Your task to perform on an android device: turn off picture-in-picture Image 0: 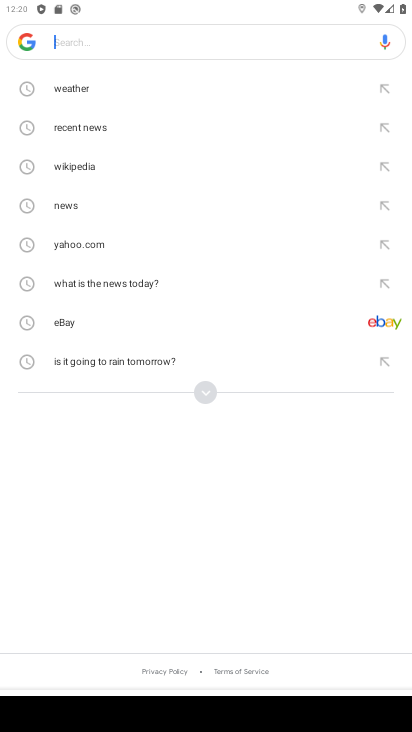
Step 0: press home button
Your task to perform on an android device: turn off picture-in-picture Image 1: 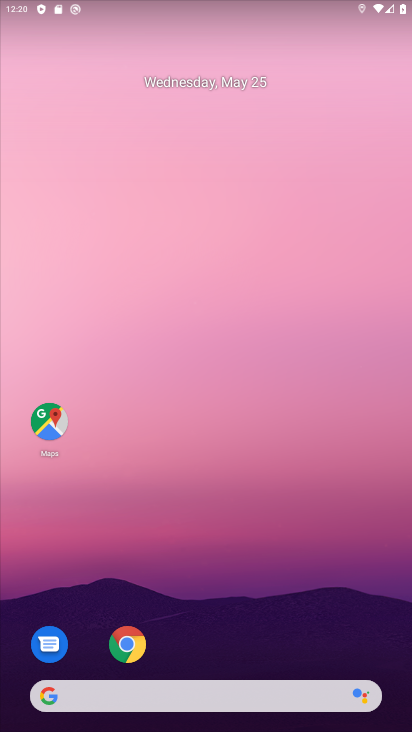
Step 1: drag from (202, 510) to (160, 46)
Your task to perform on an android device: turn off picture-in-picture Image 2: 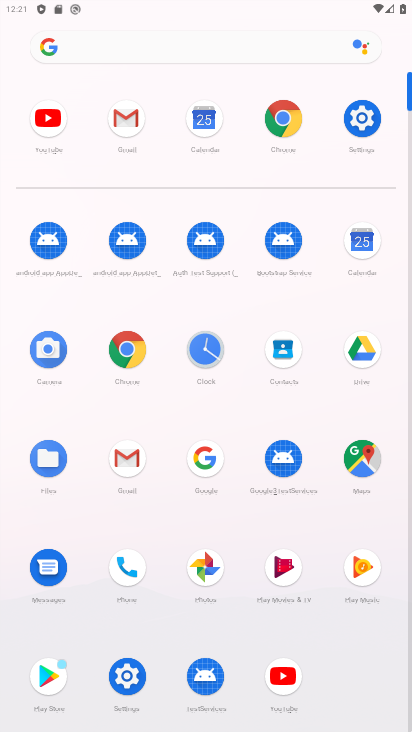
Step 2: click (363, 116)
Your task to perform on an android device: turn off picture-in-picture Image 3: 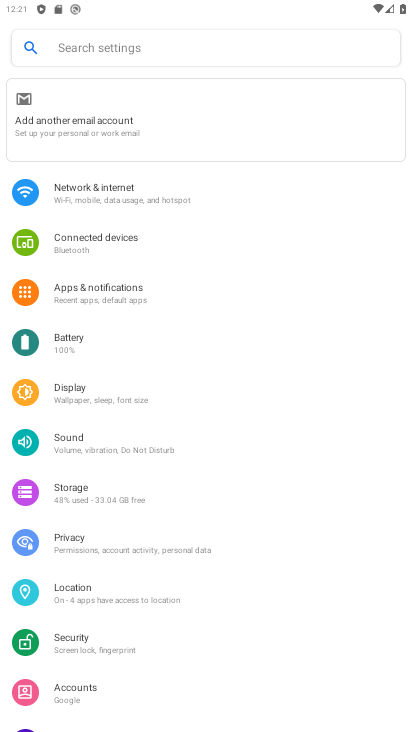
Step 3: click (87, 275)
Your task to perform on an android device: turn off picture-in-picture Image 4: 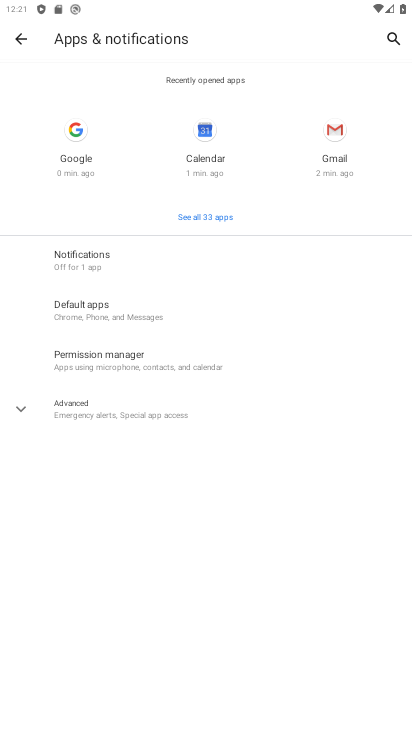
Step 4: click (76, 245)
Your task to perform on an android device: turn off picture-in-picture Image 5: 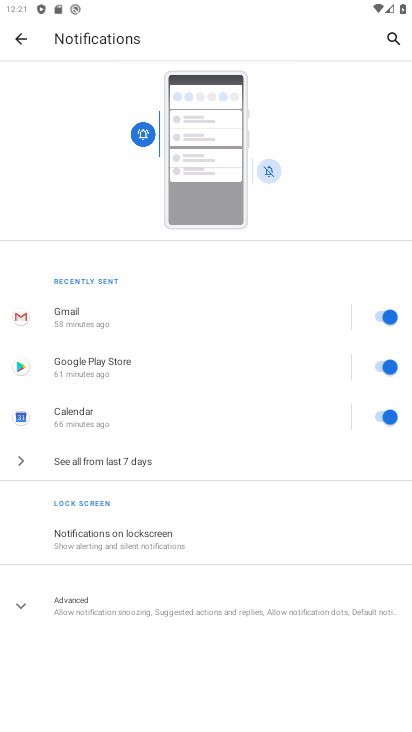
Step 5: click (20, 33)
Your task to perform on an android device: turn off picture-in-picture Image 6: 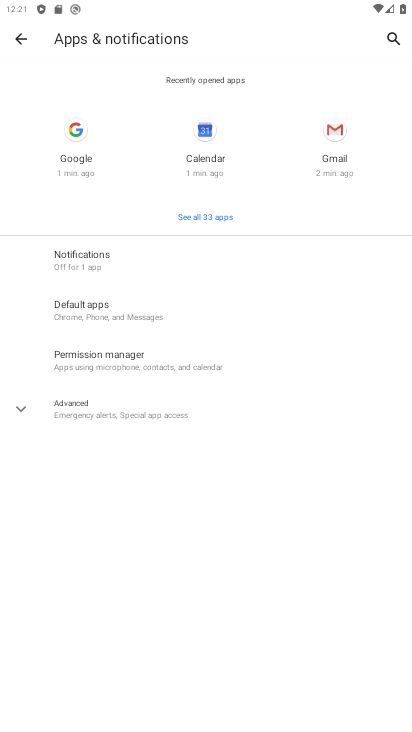
Step 6: click (55, 405)
Your task to perform on an android device: turn off picture-in-picture Image 7: 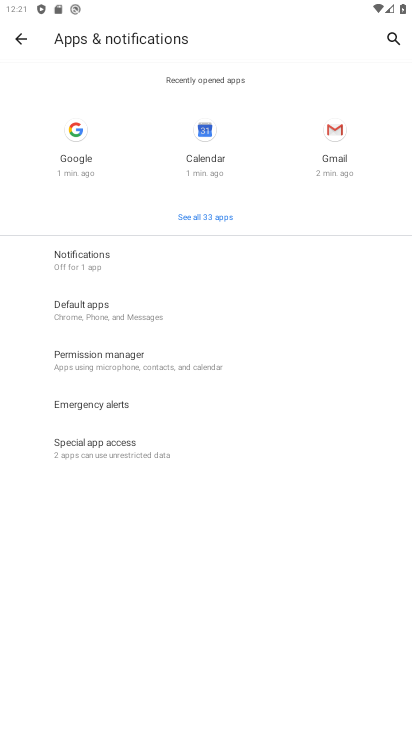
Step 7: click (106, 439)
Your task to perform on an android device: turn off picture-in-picture Image 8: 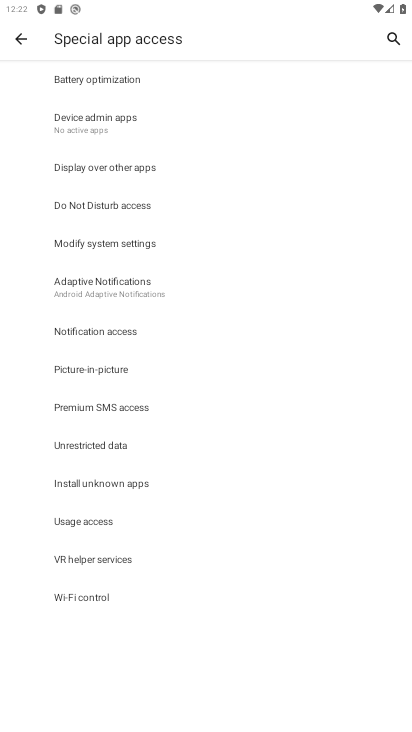
Step 8: click (104, 369)
Your task to perform on an android device: turn off picture-in-picture Image 9: 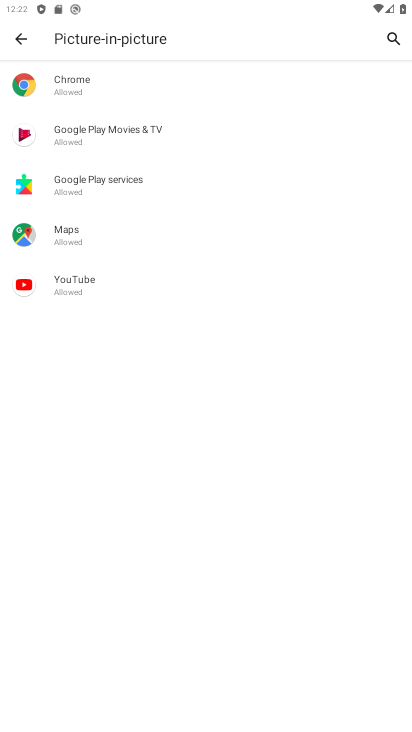
Step 9: click (67, 78)
Your task to perform on an android device: turn off picture-in-picture Image 10: 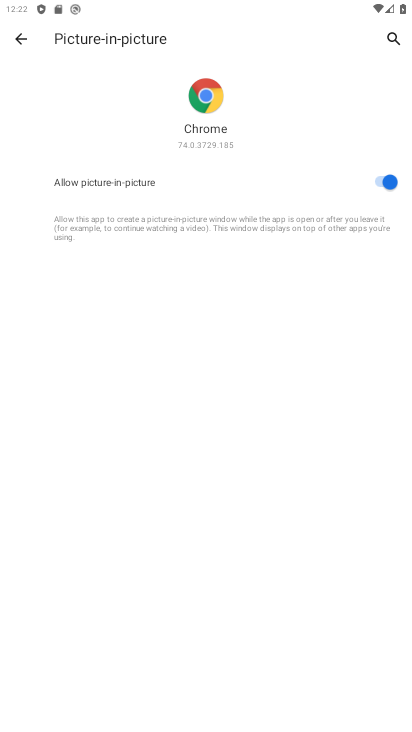
Step 10: click (385, 180)
Your task to perform on an android device: turn off picture-in-picture Image 11: 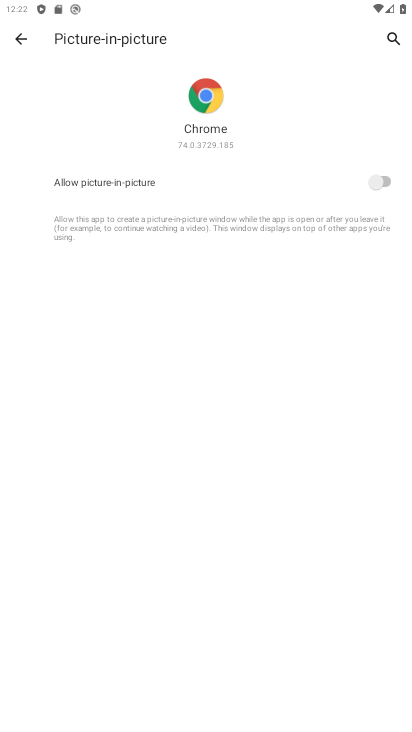
Step 11: click (21, 38)
Your task to perform on an android device: turn off picture-in-picture Image 12: 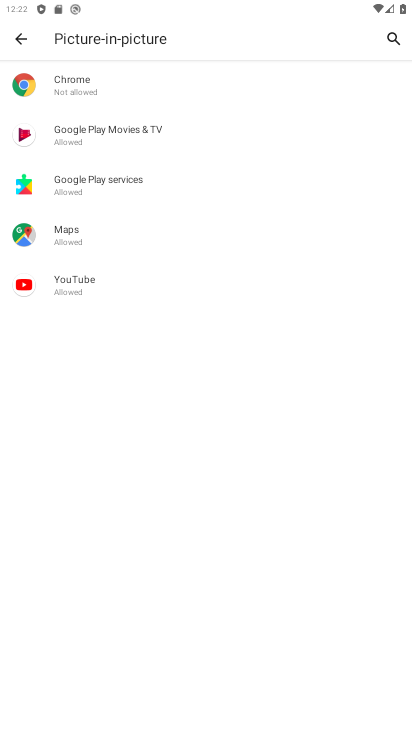
Step 12: click (97, 131)
Your task to perform on an android device: turn off picture-in-picture Image 13: 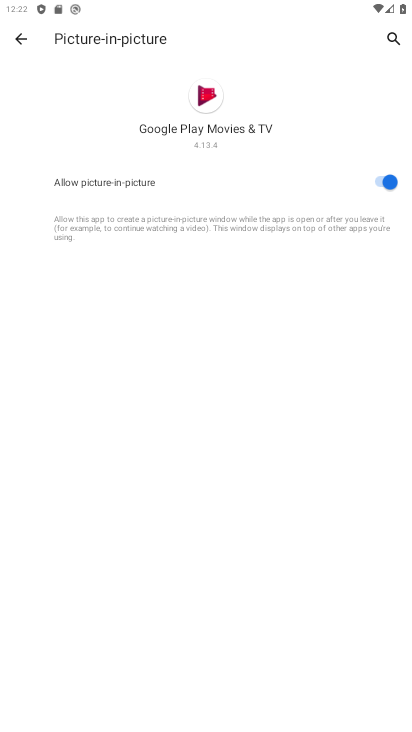
Step 13: click (395, 174)
Your task to perform on an android device: turn off picture-in-picture Image 14: 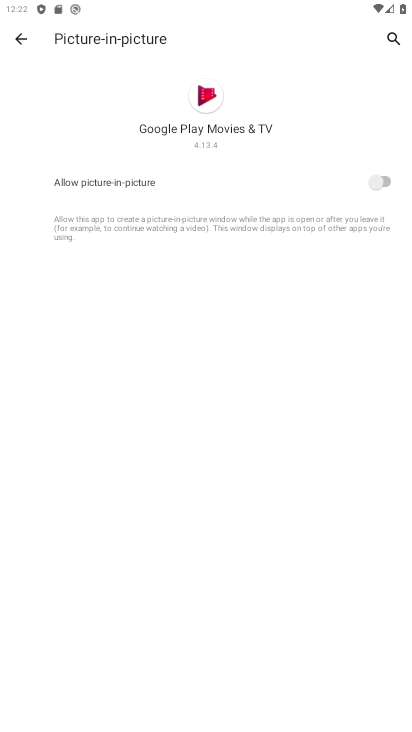
Step 14: click (21, 40)
Your task to perform on an android device: turn off picture-in-picture Image 15: 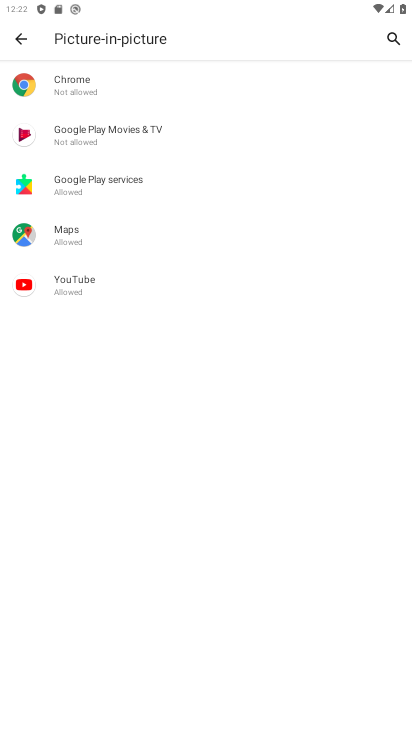
Step 15: click (91, 180)
Your task to perform on an android device: turn off picture-in-picture Image 16: 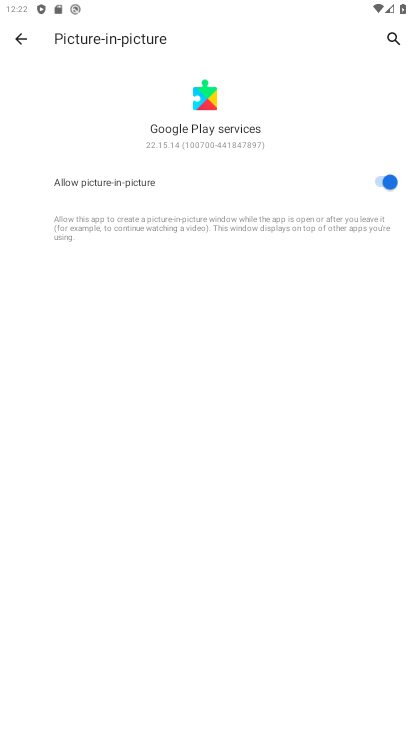
Step 16: click (389, 188)
Your task to perform on an android device: turn off picture-in-picture Image 17: 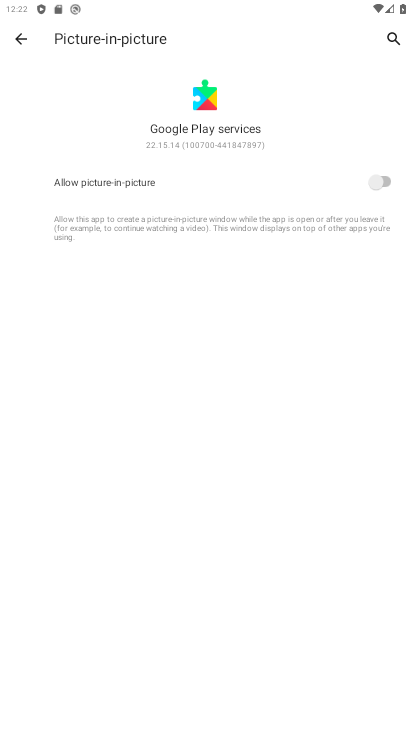
Step 17: click (19, 29)
Your task to perform on an android device: turn off picture-in-picture Image 18: 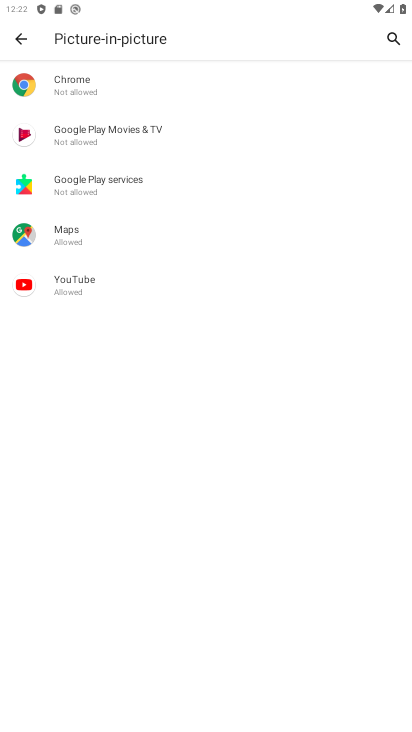
Step 18: click (65, 231)
Your task to perform on an android device: turn off picture-in-picture Image 19: 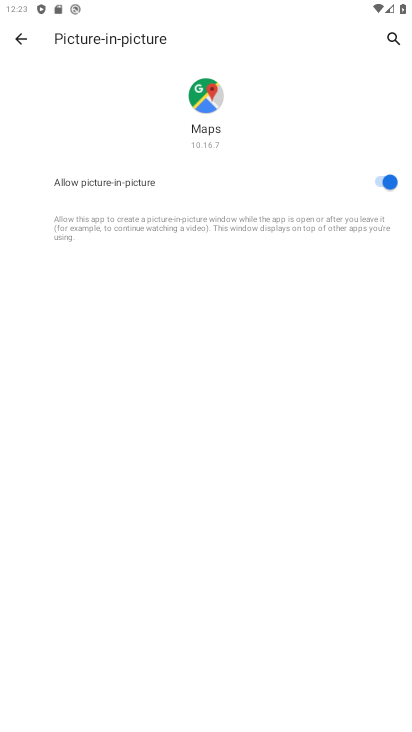
Step 19: click (387, 184)
Your task to perform on an android device: turn off picture-in-picture Image 20: 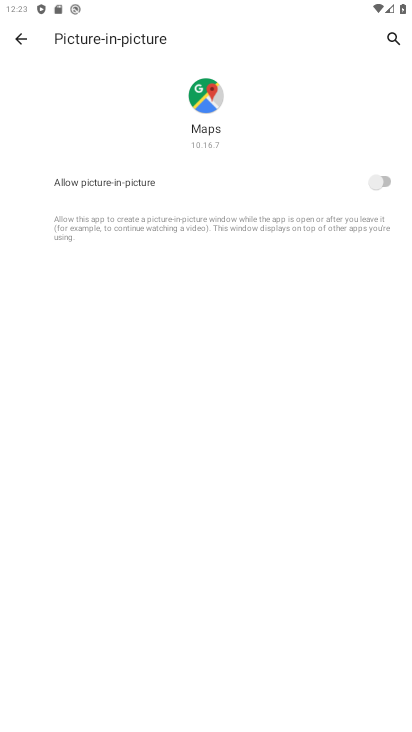
Step 20: click (25, 36)
Your task to perform on an android device: turn off picture-in-picture Image 21: 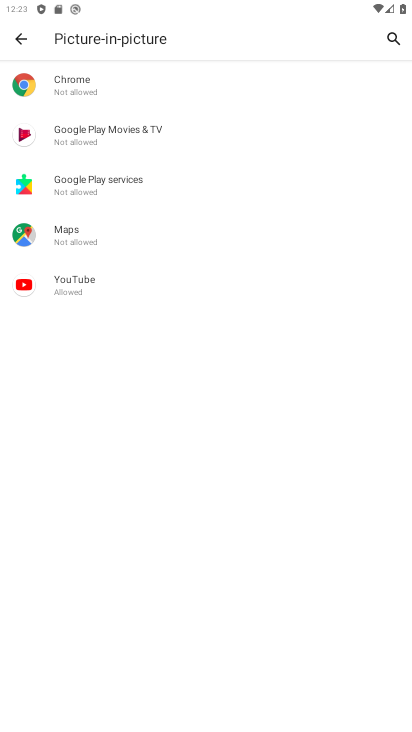
Step 21: click (77, 278)
Your task to perform on an android device: turn off picture-in-picture Image 22: 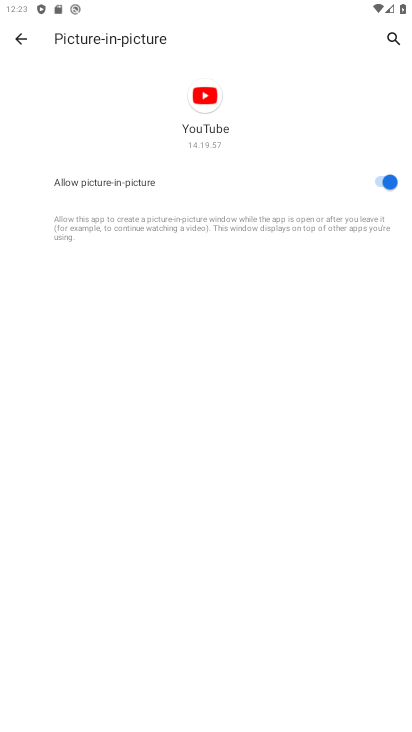
Step 22: click (388, 183)
Your task to perform on an android device: turn off picture-in-picture Image 23: 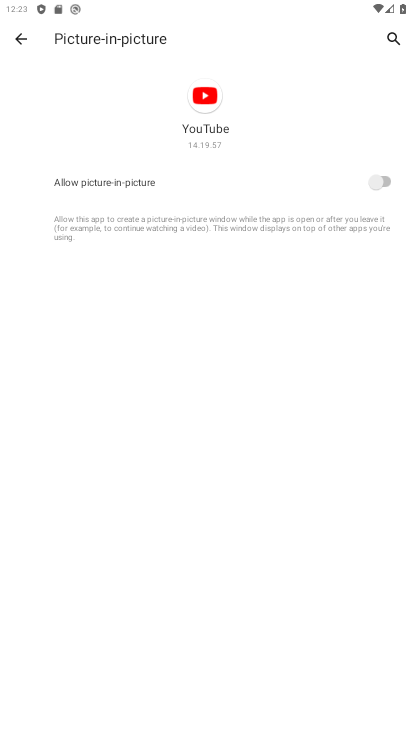
Step 23: task complete